Your task to perform on an android device: change the clock display to show seconds Image 0: 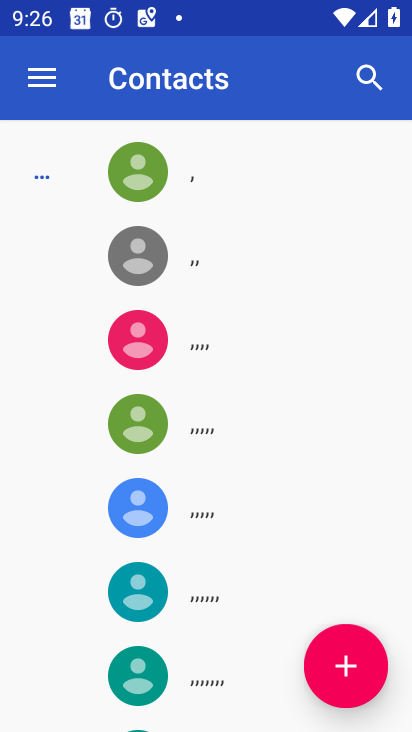
Step 0: drag from (335, 703) to (185, 116)
Your task to perform on an android device: change the clock display to show seconds Image 1: 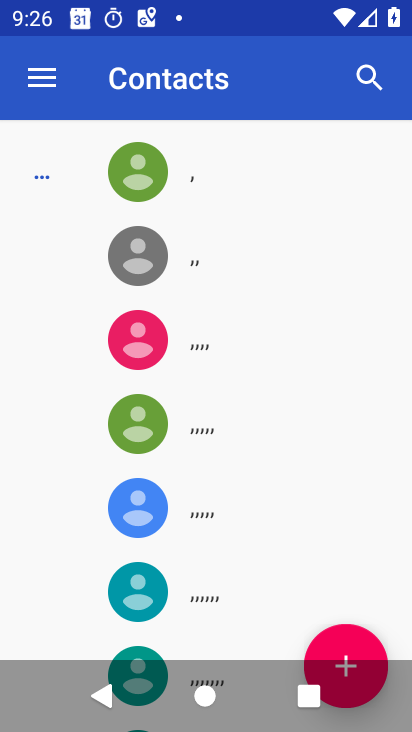
Step 1: press back button
Your task to perform on an android device: change the clock display to show seconds Image 2: 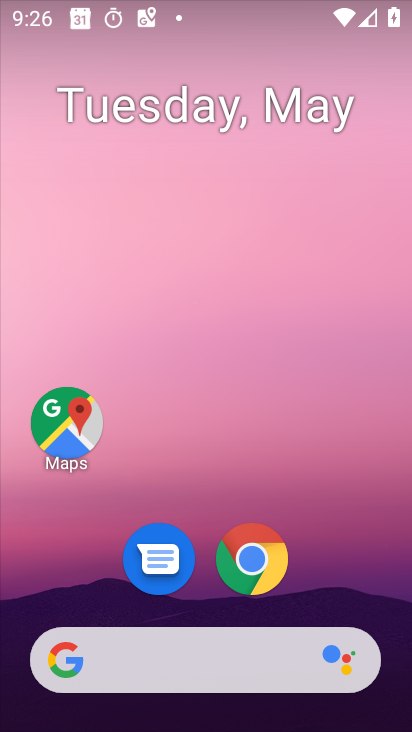
Step 2: drag from (347, 673) to (141, 58)
Your task to perform on an android device: change the clock display to show seconds Image 3: 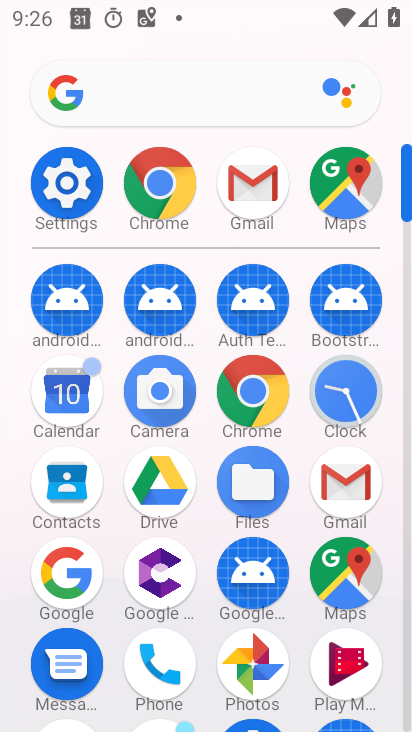
Step 3: click (348, 410)
Your task to perform on an android device: change the clock display to show seconds Image 4: 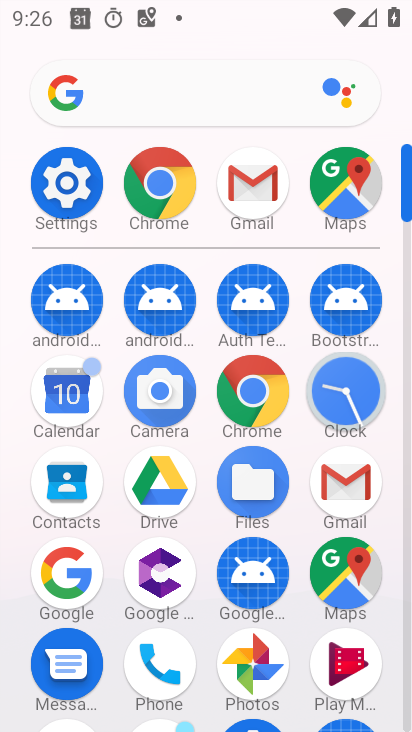
Step 4: click (347, 409)
Your task to perform on an android device: change the clock display to show seconds Image 5: 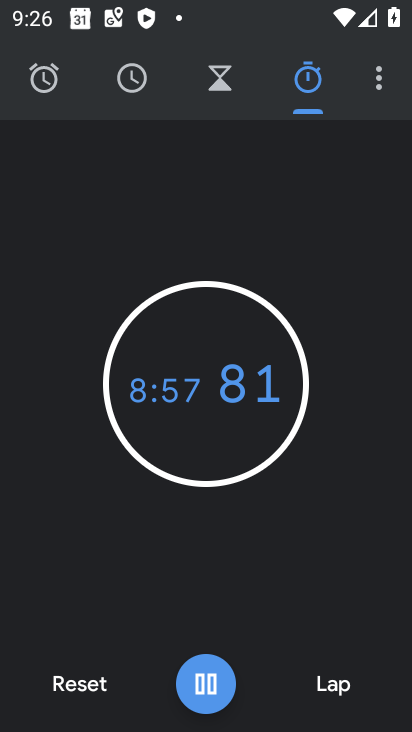
Step 5: click (201, 694)
Your task to perform on an android device: change the clock display to show seconds Image 6: 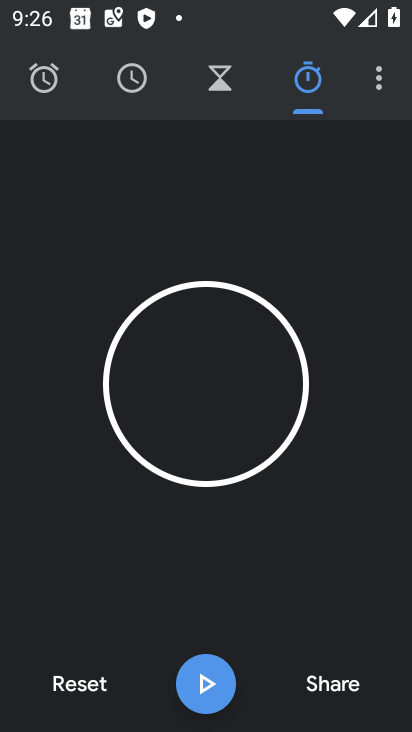
Step 6: click (370, 75)
Your task to perform on an android device: change the clock display to show seconds Image 7: 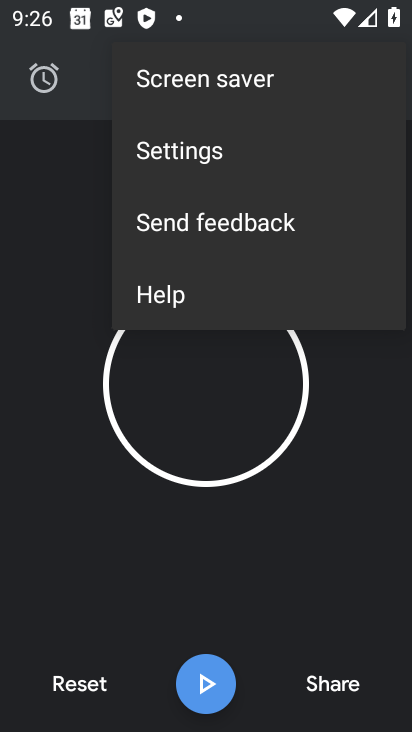
Step 7: click (199, 156)
Your task to perform on an android device: change the clock display to show seconds Image 8: 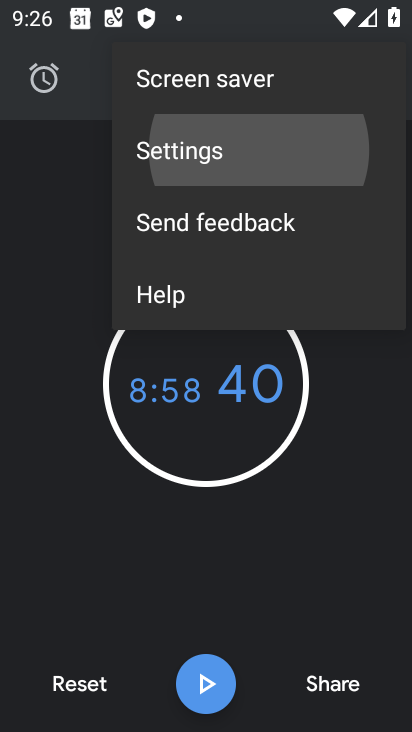
Step 8: click (196, 154)
Your task to perform on an android device: change the clock display to show seconds Image 9: 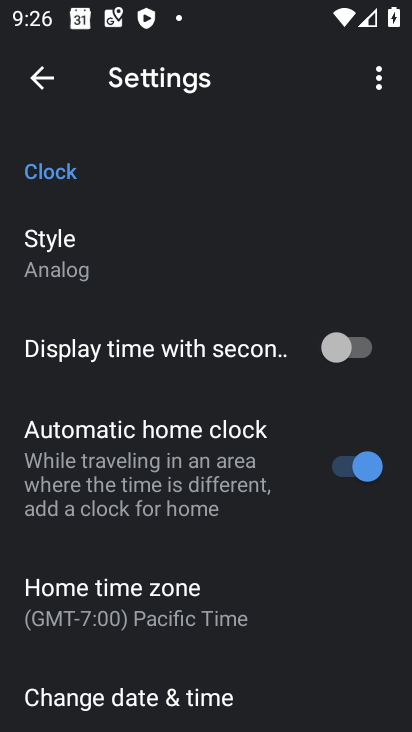
Step 9: click (110, 257)
Your task to perform on an android device: change the clock display to show seconds Image 10: 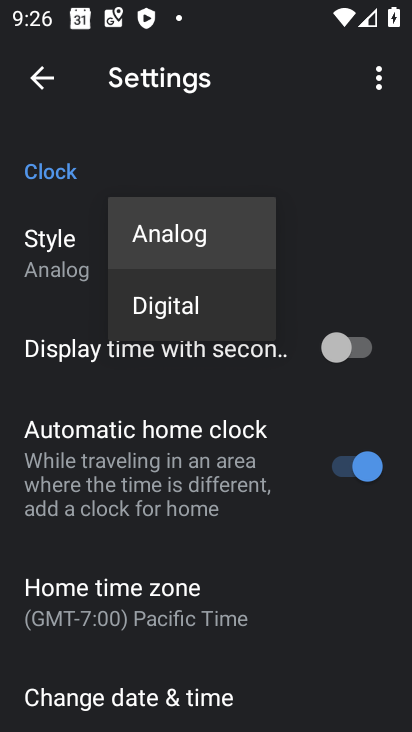
Step 10: click (348, 223)
Your task to perform on an android device: change the clock display to show seconds Image 11: 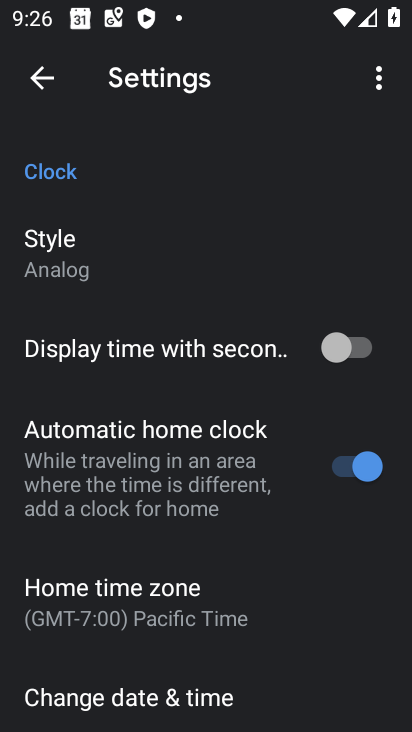
Step 11: click (337, 360)
Your task to perform on an android device: change the clock display to show seconds Image 12: 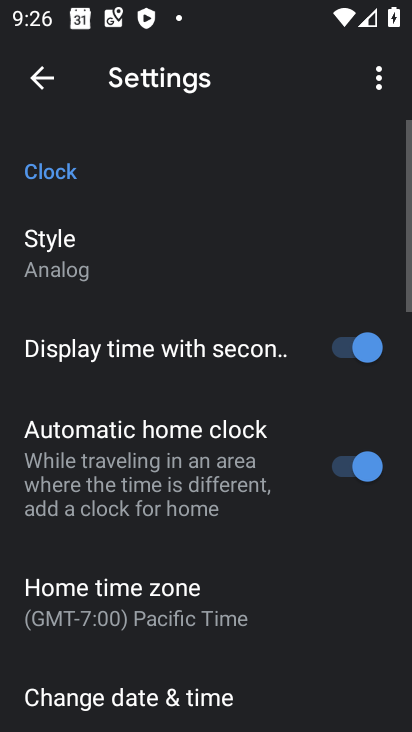
Step 12: task complete